Your task to perform on an android device: Open Maps and search for coffee Image 0: 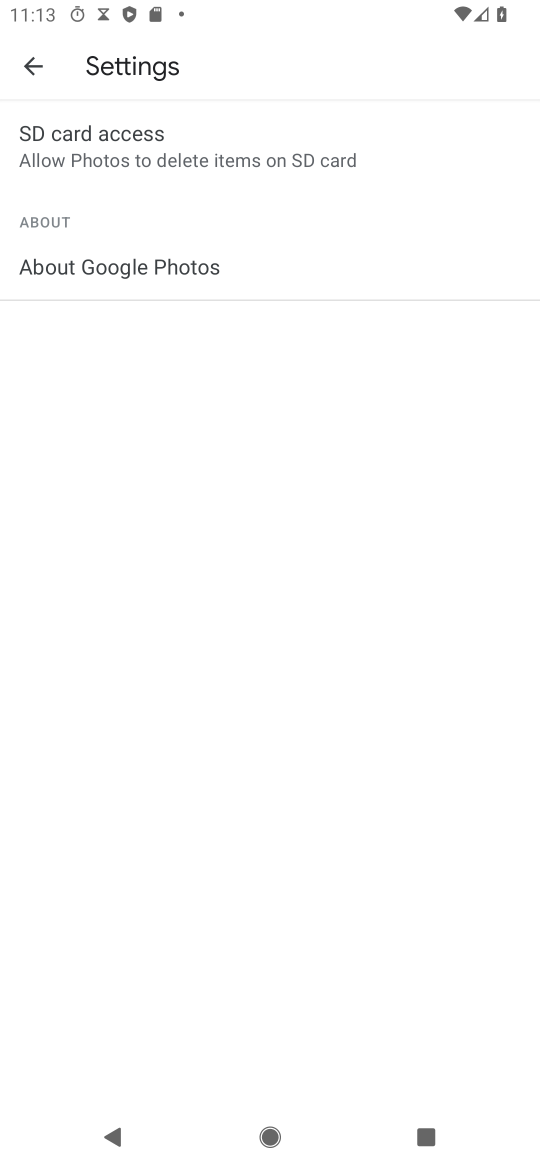
Step 0: press back button
Your task to perform on an android device: Open Maps and search for coffee Image 1: 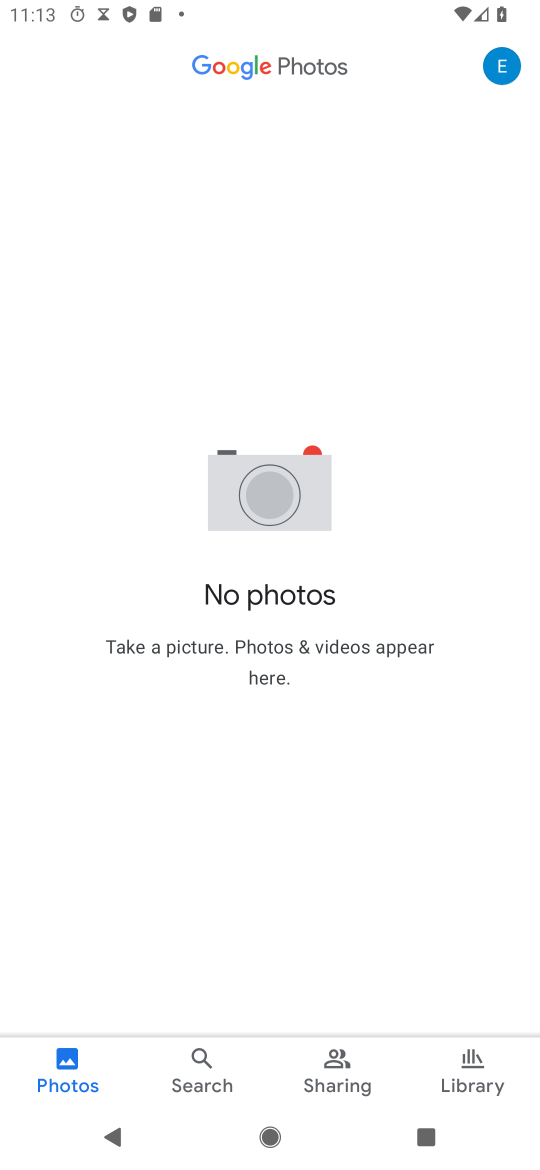
Step 1: press home button
Your task to perform on an android device: Open Maps and search for coffee Image 2: 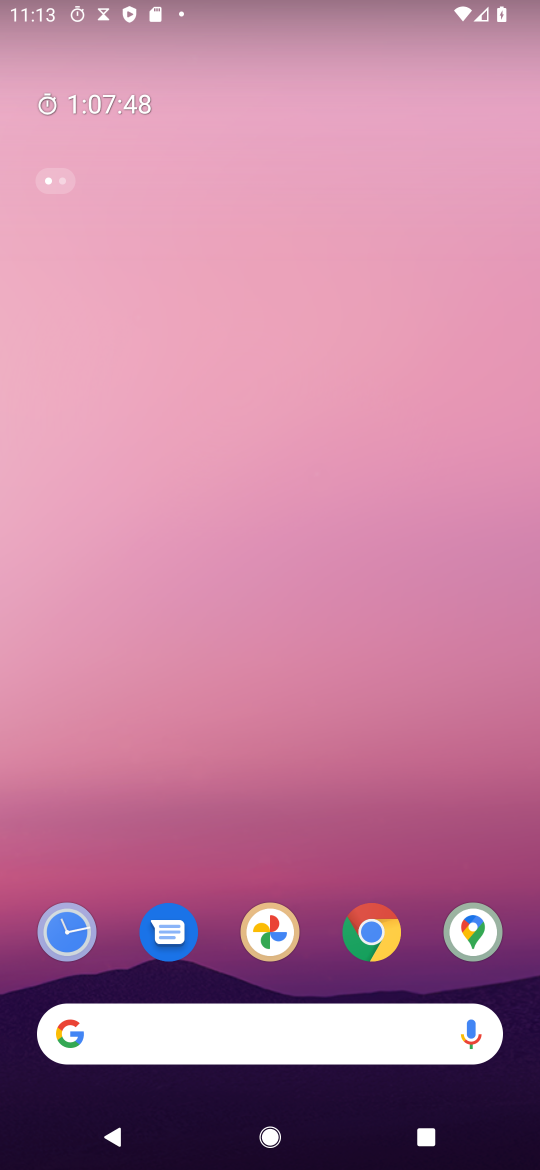
Step 2: click (481, 944)
Your task to perform on an android device: Open Maps and search for coffee Image 3: 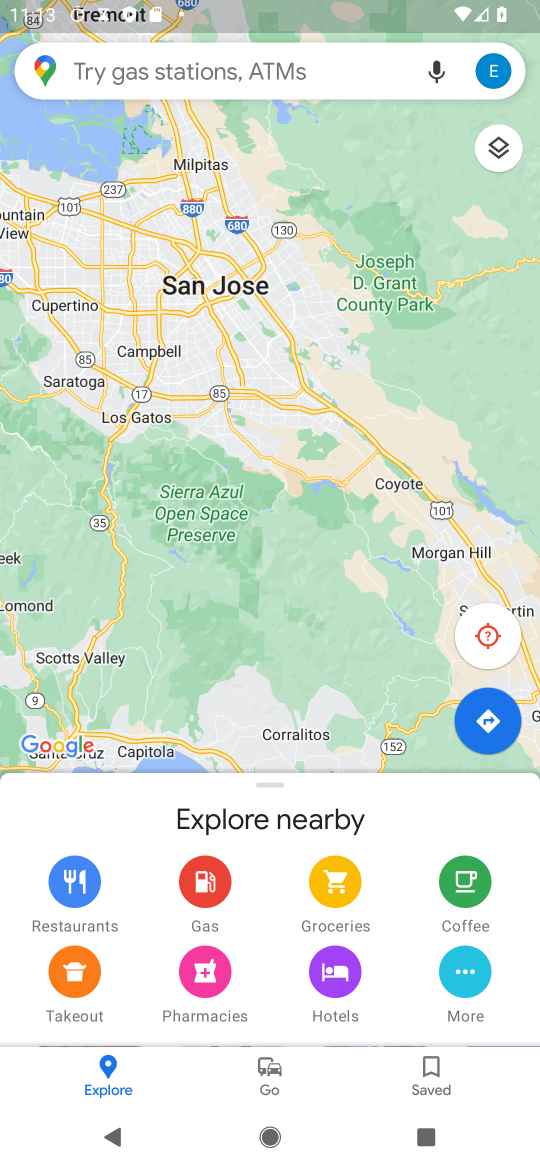
Step 3: click (137, 50)
Your task to perform on an android device: Open Maps and search for coffee Image 4: 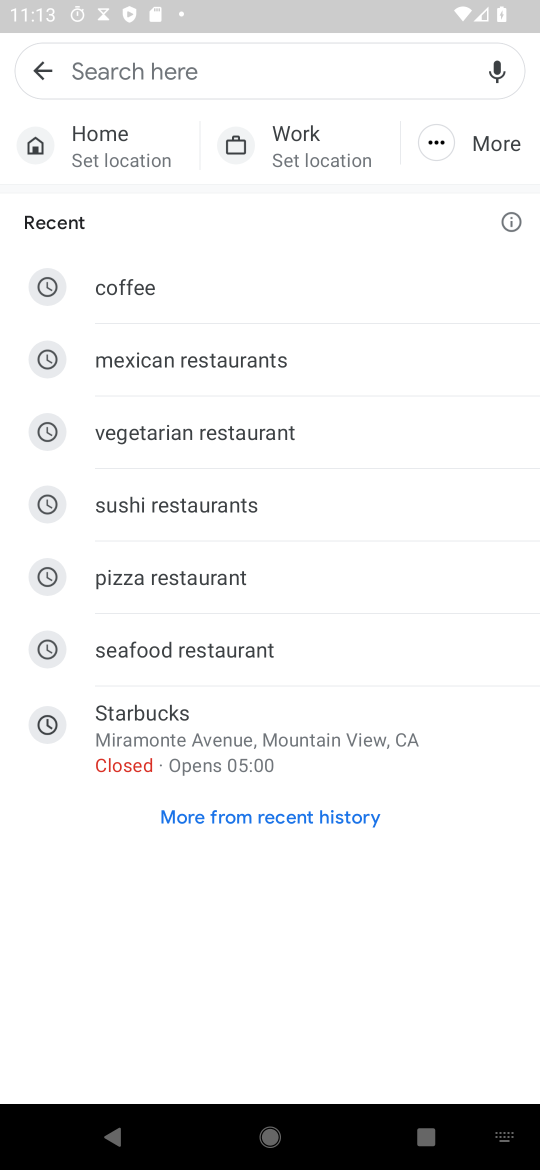
Step 4: click (177, 293)
Your task to perform on an android device: Open Maps and search for coffee Image 5: 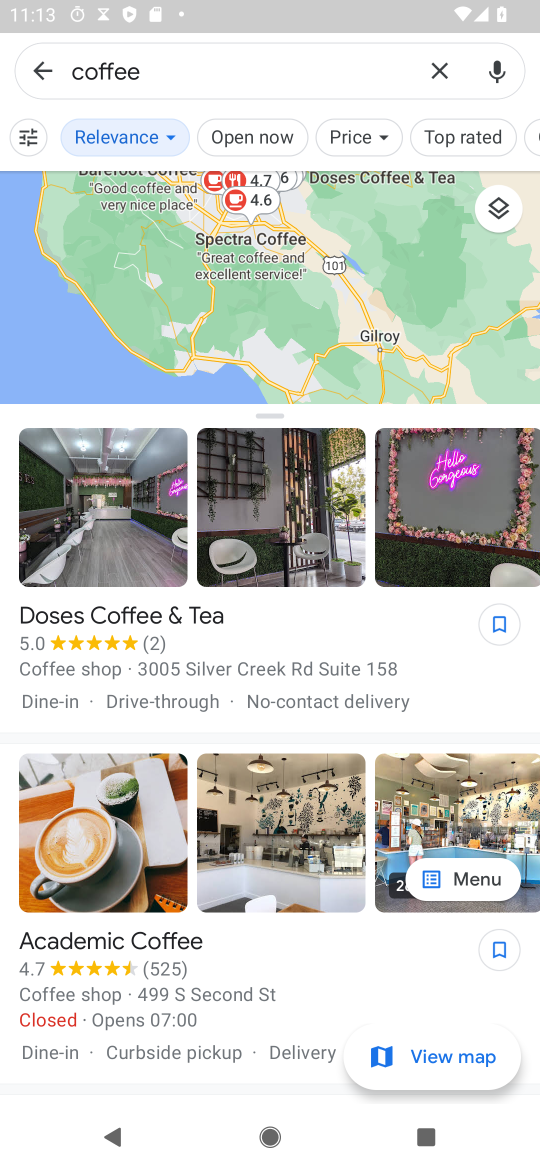
Step 5: task complete